Your task to perform on an android device: Show me popular videos on Youtube Image 0: 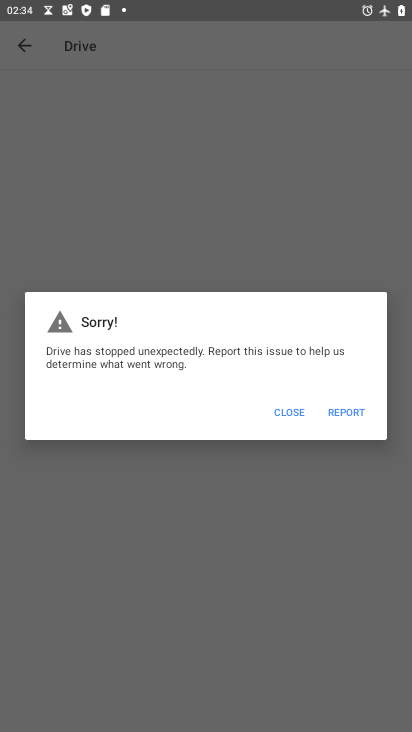
Step 0: press home button
Your task to perform on an android device: Show me popular videos on Youtube Image 1: 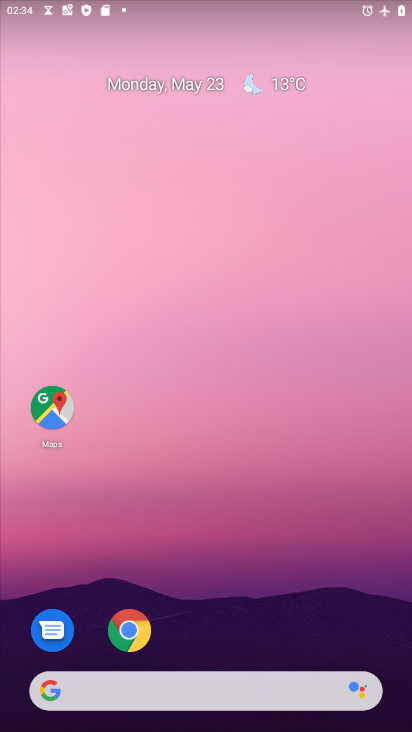
Step 1: drag from (180, 199) to (140, 57)
Your task to perform on an android device: Show me popular videos on Youtube Image 2: 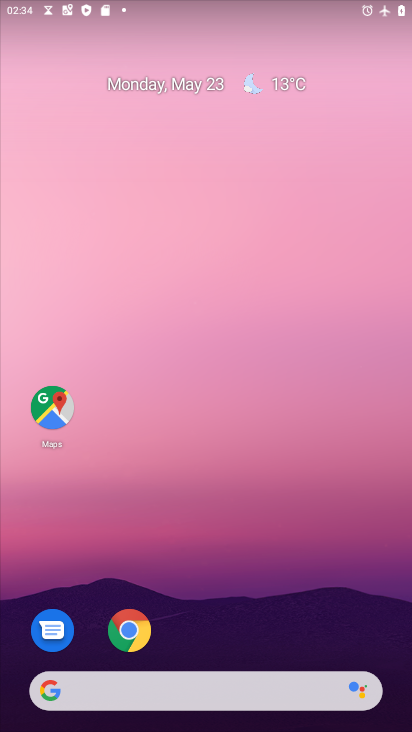
Step 2: drag from (197, 570) to (152, 44)
Your task to perform on an android device: Show me popular videos on Youtube Image 3: 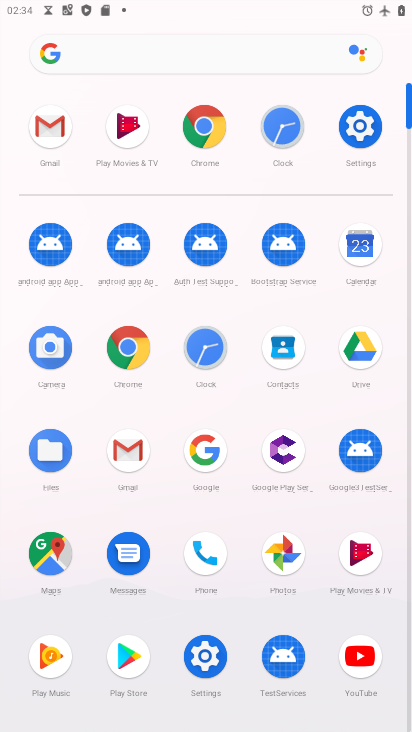
Step 3: click (363, 656)
Your task to perform on an android device: Show me popular videos on Youtube Image 4: 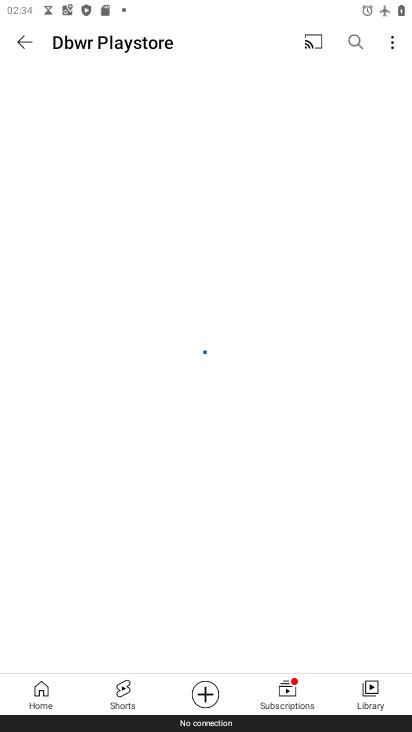
Step 4: click (45, 692)
Your task to perform on an android device: Show me popular videos on Youtube Image 5: 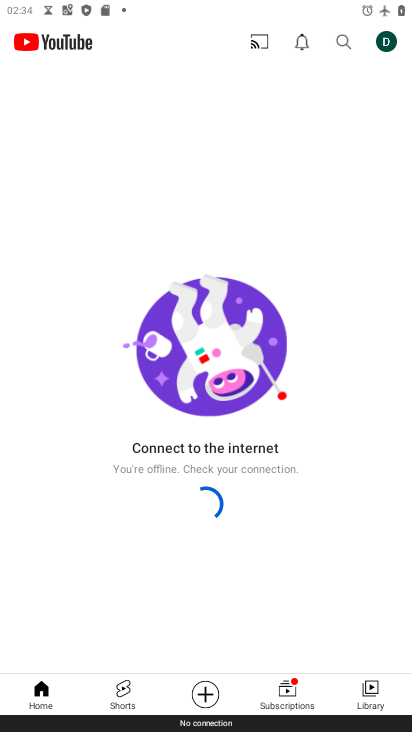
Step 5: click (107, 206)
Your task to perform on an android device: Show me popular videos on Youtube Image 6: 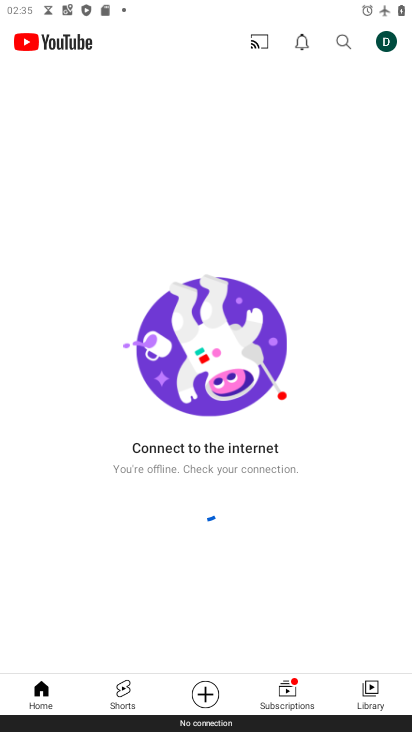
Step 6: click (38, 682)
Your task to perform on an android device: Show me popular videos on Youtube Image 7: 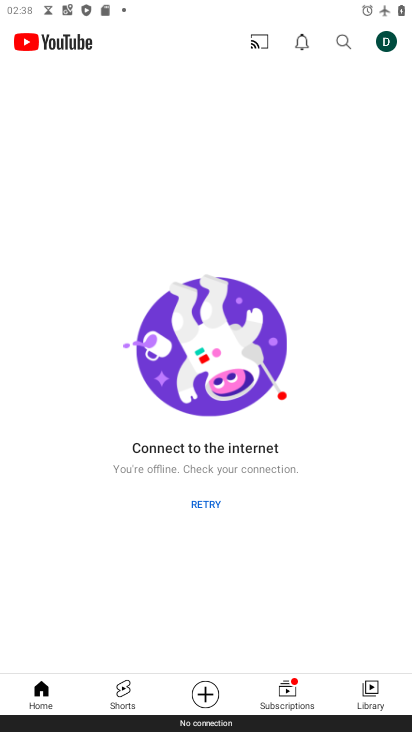
Step 7: task complete